Your task to perform on an android device: change the clock display to show seconds Image 0: 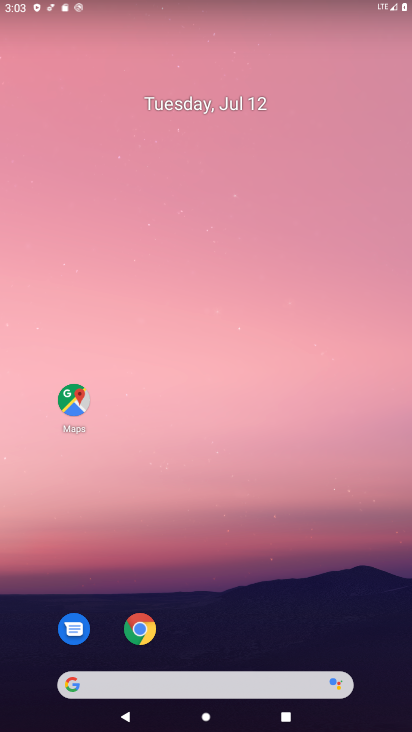
Step 0: drag from (281, 379) to (244, 204)
Your task to perform on an android device: change the clock display to show seconds Image 1: 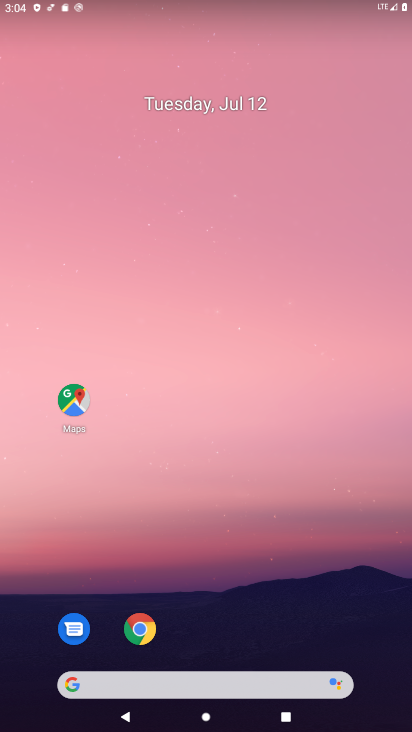
Step 1: drag from (245, 657) to (271, 262)
Your task to perform on an android device: change the clock display to show seconds Image 2: 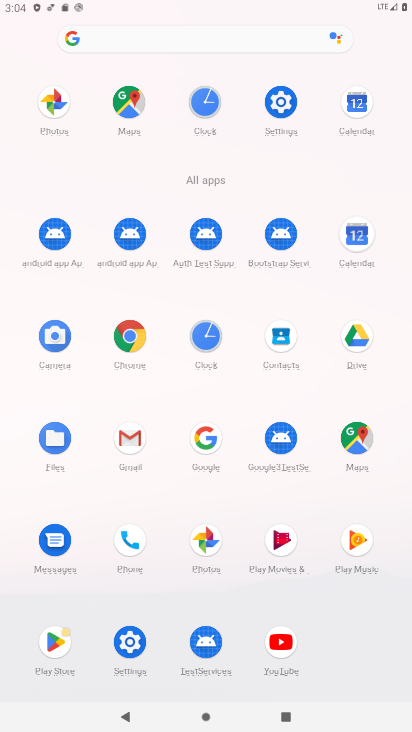
Step 2: click (129, 647)
Your task to perform on an android device: change the clock display to show seconds Image 3: 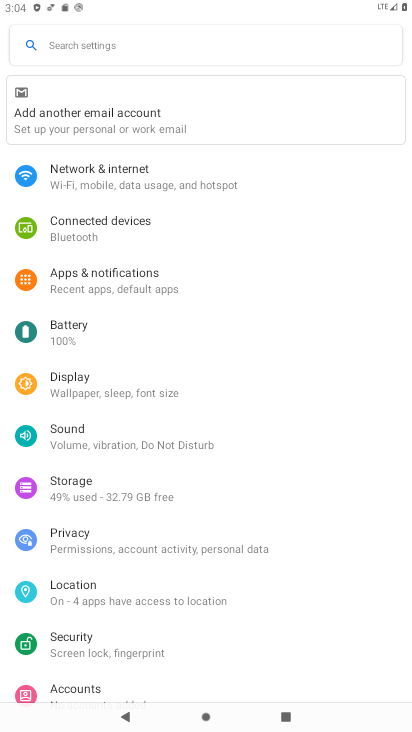
Step 3: press back button
Your task to perform on an android device: change the clock display to show seconds Image 4: 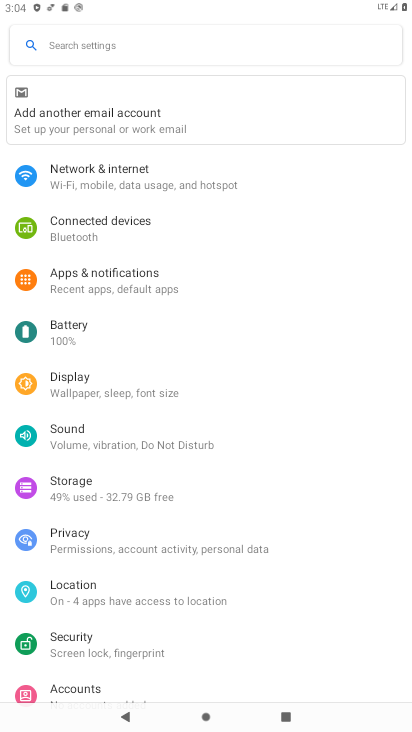
Step 4: press back button
Your task to perform on an android device: change the clock display to show seconds Image 5: 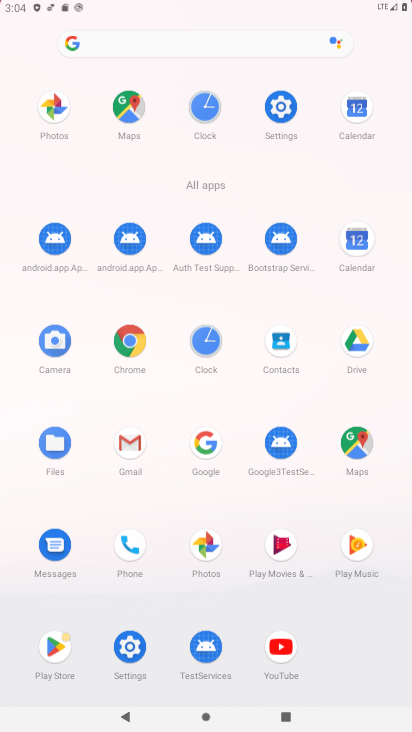
Step 5: press back button
Your task to perform on an android device: change the clock display to show seconds Image 6: 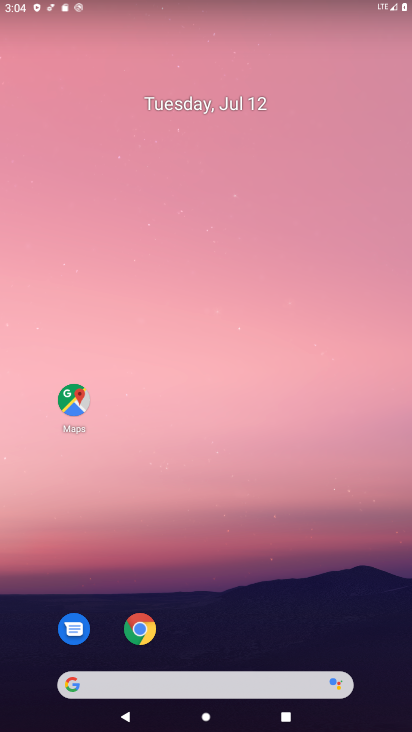
Step 6: click (240, 171)
Your task to perform on an android device: change the clock display to show seconds Image 7: 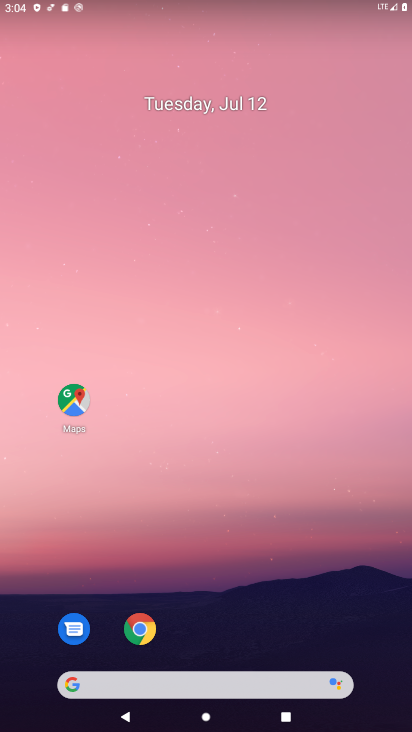
Step 7: drag from (237, 595) to (175, 106)
Your task to perform on an android device: change the clock display to show seconds Image 8: 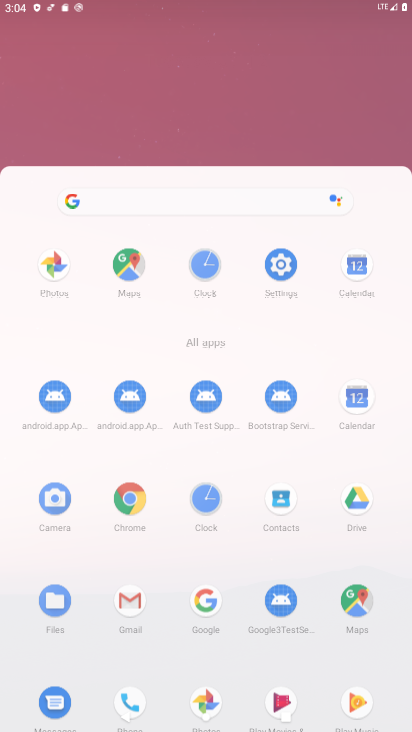
Step 8: drag from (258, 462) to (136, 55)
Your task to perform on an android device: change the clock display to show seconds Image 9: 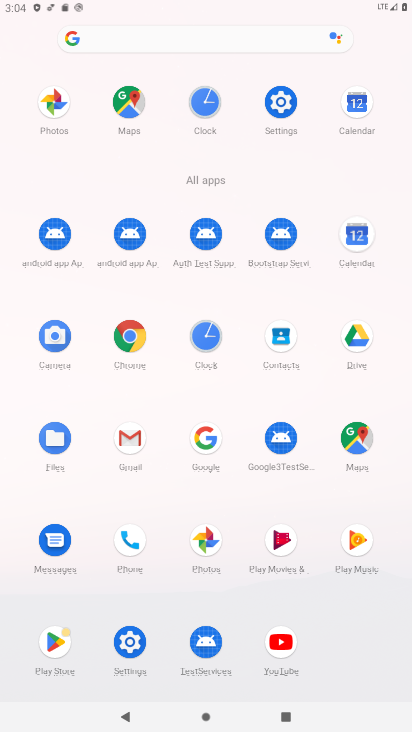
Step 9: click (201, 336)
Your task to perform on an android device: change the clock display to show seconds Image 10: 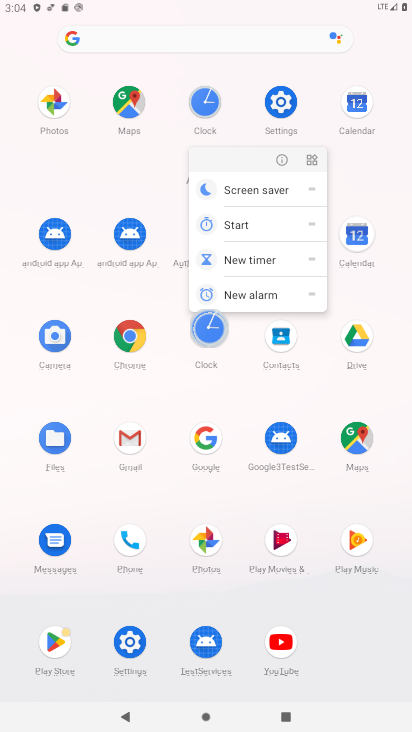
Step 10: click (207, 330)
Your task to perform on an android device: change the clock display to show seconds Image 11: 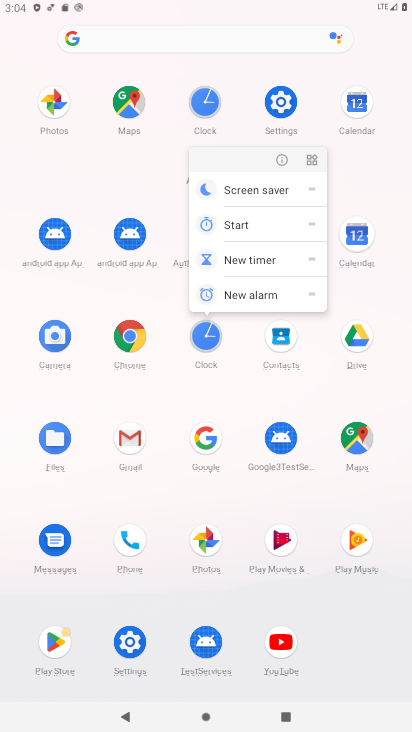
Step 11: click (202, 331)
Your task to perform on an android device: change the clock display to show seconds Image 12: 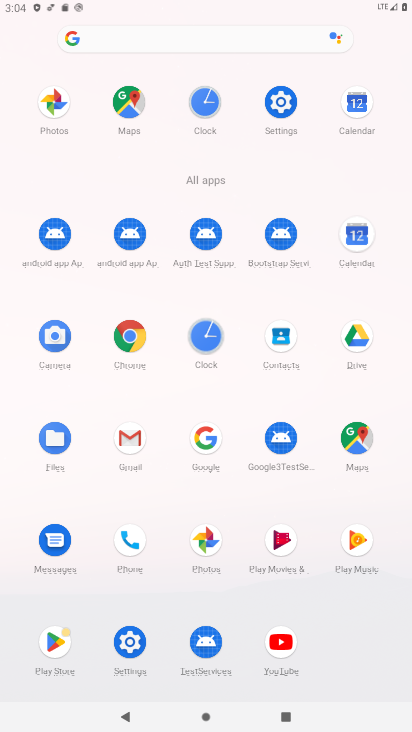
Step 12: click (205, 334)
Your task to perform on an android device: change the clock display to show seconds Image 13: 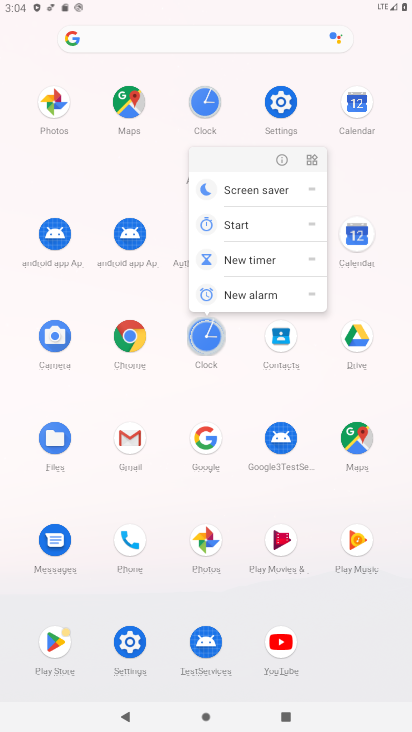
Step 13: click (206, 338)
Your task to perform on an android device: change the clock display to show seconds Image 14: 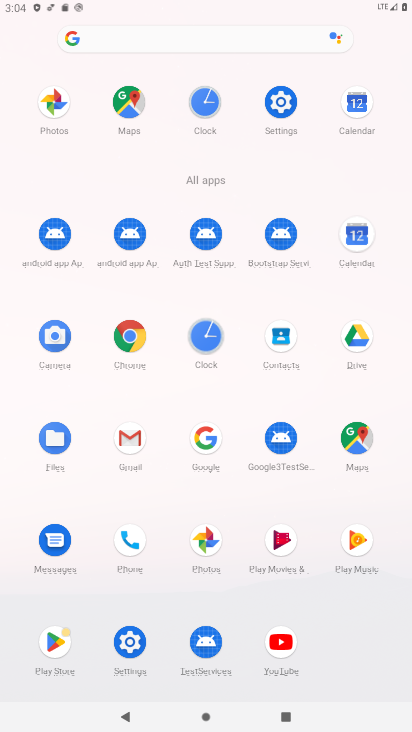
Step 14: click (210, 345)
Your task to perform on an android device: change the clock display to show seconds Image 15: 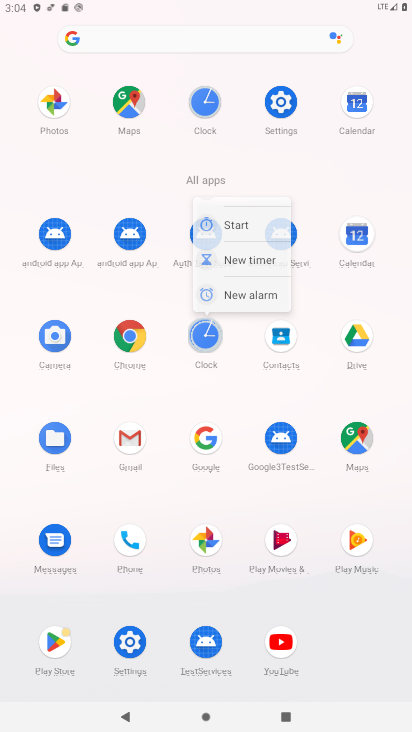
Step 15: click (210, 345)
Your task to perform on an android device: change the clock display to show seconds Image 16: 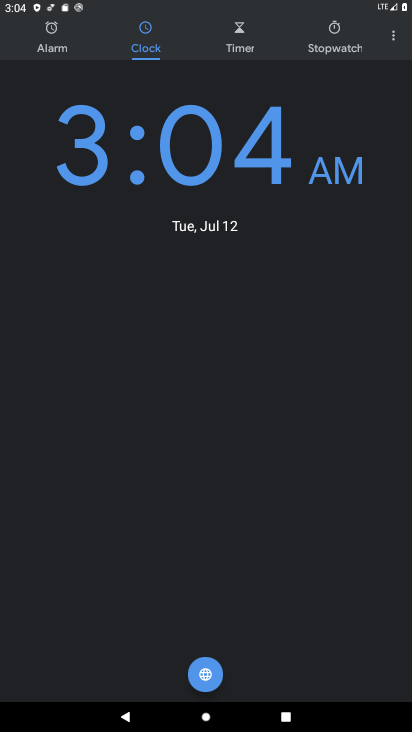
Step 16: click (383, 43)
Your task to perform on an android device: change the clock display to show seconds Image 17: 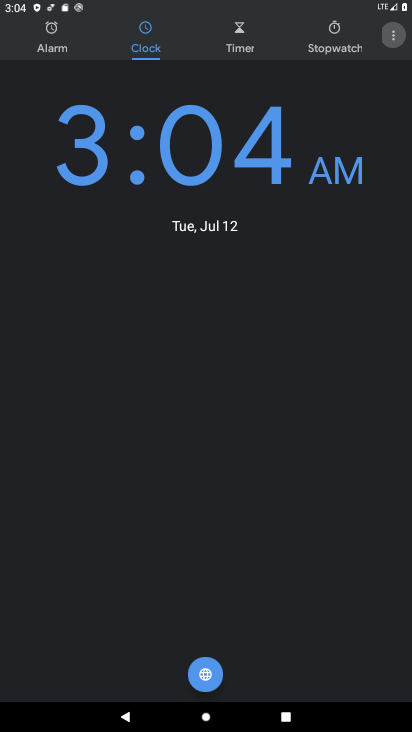
Step 17: click (383, 41)
Your task to perform on an android device: change the clock display to show seconds Image 18: 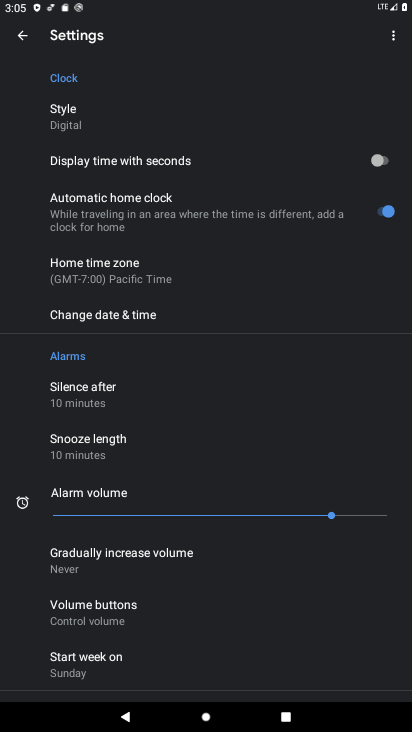
Step 18: click (385, 156)
Your task to perform on an android device: change the clock display to show seconds Image 19: 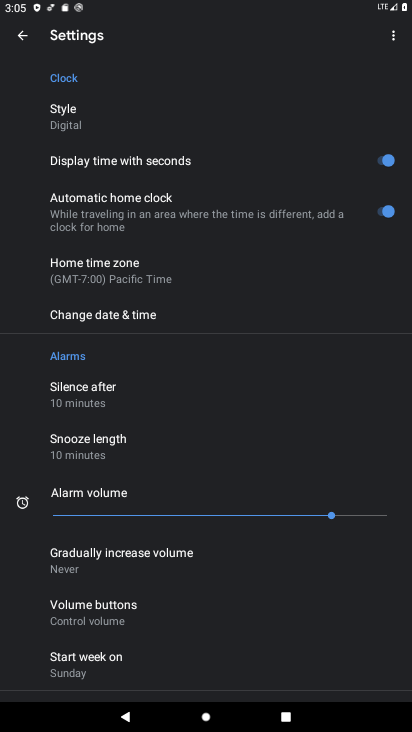
Step 19: task complete